Your task to perform on an android device: What's the top post on reddit right now? Image 0: 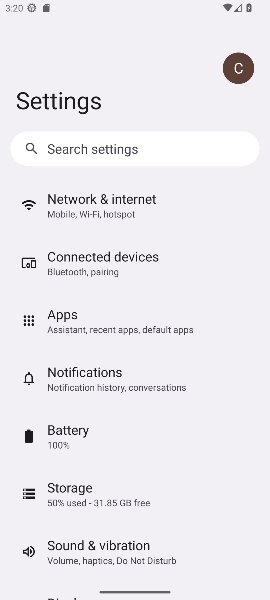
Step 0: press home button
Your task to perform on an android device: What's the top post on reddit right now? Image 1: 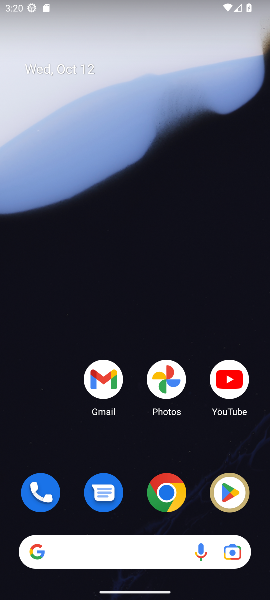
Step 1: click (163, 497)
Your task to perform on an android device: What's the top post on reddit right now? Image 2: 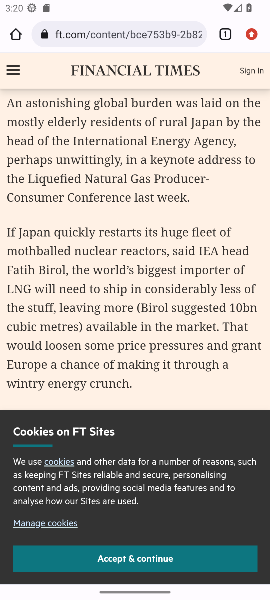
Step 2: click (107, 34)
Your task to perform on an android device: What's the top post on reddit right now? Image 3: 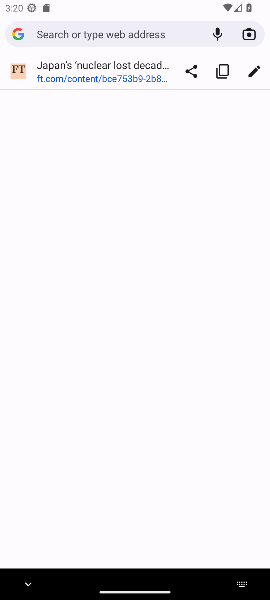
Step 3: type " top post on reddit right now"
Your task to perform on an android device: What's the top post on reddit right now? Image 4: 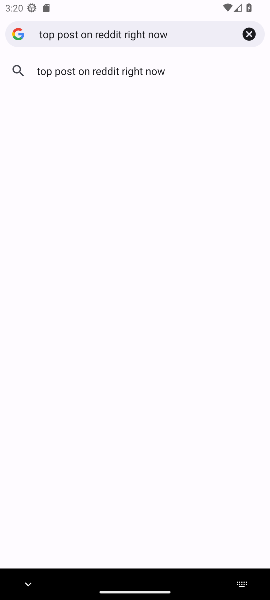
Step 4: click (131, 72)
Your task to perform on an android device: What's the top post on reddit right now? Image 5: 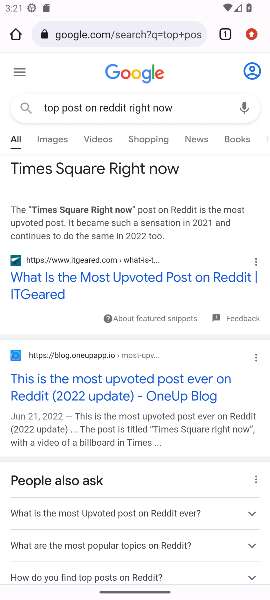
Step 5: click (63, 285)
Your task to perform on an android device: What's the top post on reddit right now? Image 6: 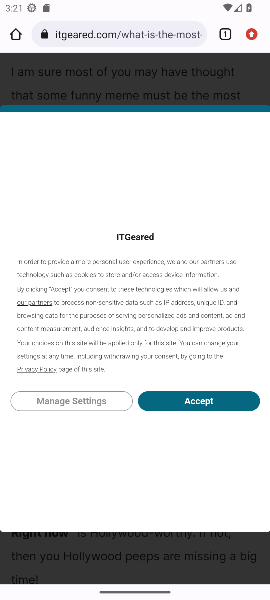
Step 6: drag from (126, 88) to (117, 27)
Your task to perform on an android device: What's the top post on reddit right now? Image 7: 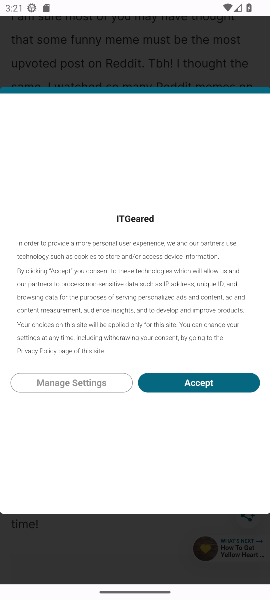
Step 7: click (195, 374)
Your task to perform on an android device: What's the top post on reddit right now? Image 8: 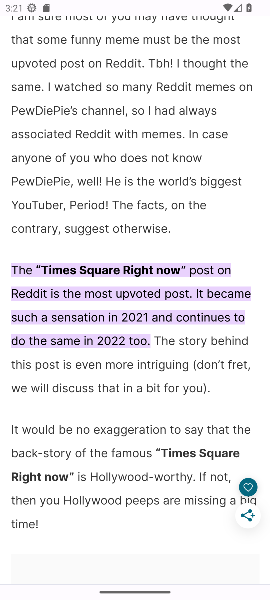
Step 8: task complete